Your task to perform on an android device: make emails show in primary in the gmail app Image 0: 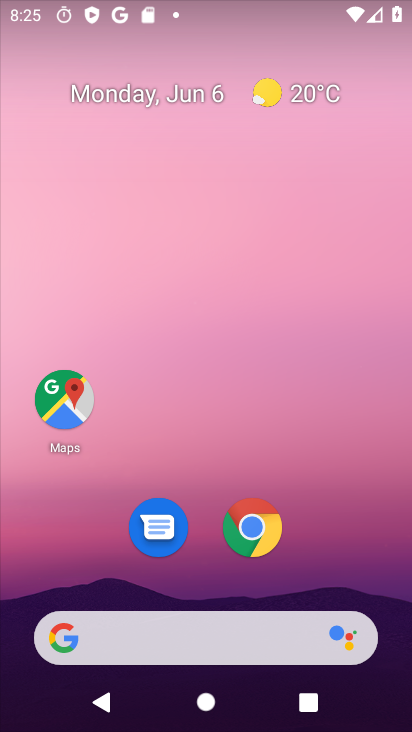
Step 0: drag from (243, 719) to (240, 113)
Your task to perform on an android device: make emails show in primary in the gmail app Image 1: 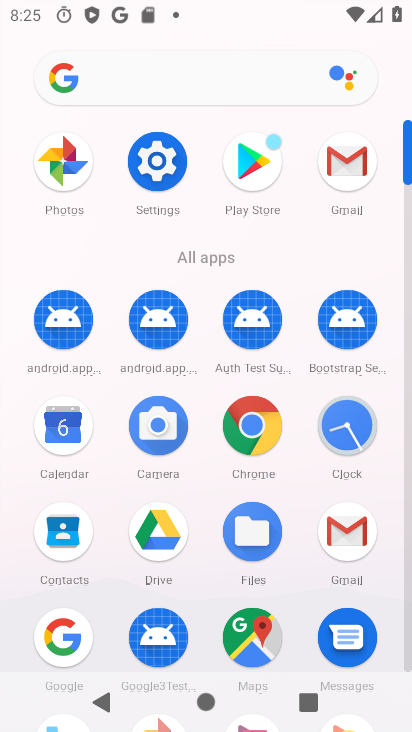
Step 1: click (344, 538)
Your task to perform on an android device: make emails show in primary in the gmail app Image 2: 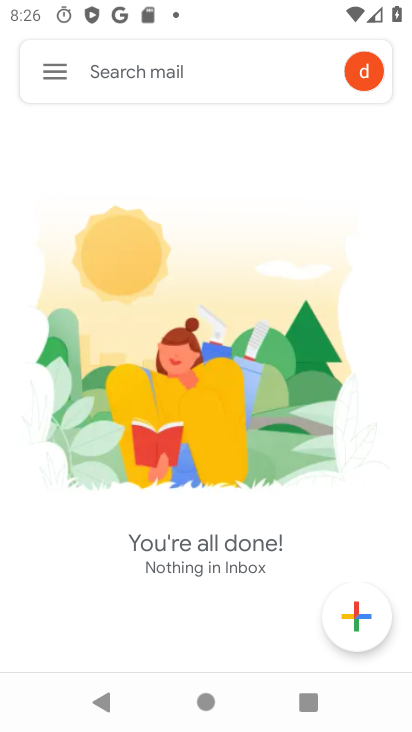
Step 2: click (55, 72)
Your task to perform on an android device: make emails show in primary in the gmail app Image 3: 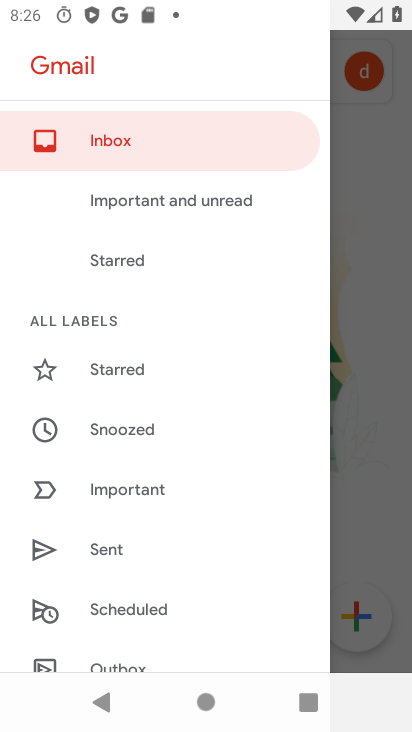
Step 3: drag from (144, 650) to (115, 136)
Your task to perform on an android device: make emails show in primary in the gmail app Image 4: 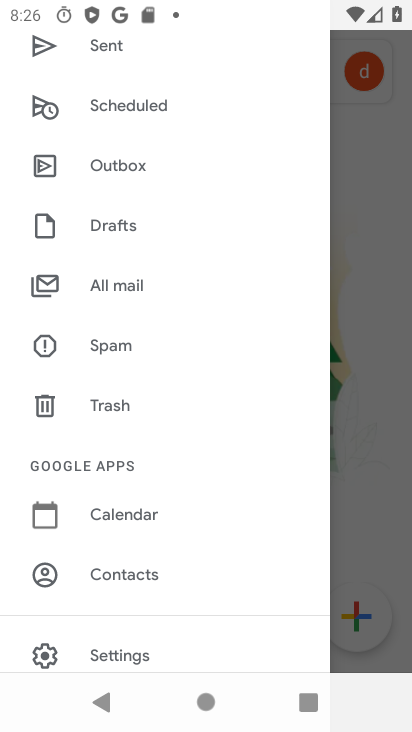
Step 4: drag from (91, 642) to (104, 268)
Your task to perform on an android device: make emails show in primary in the gmail app Image 5: 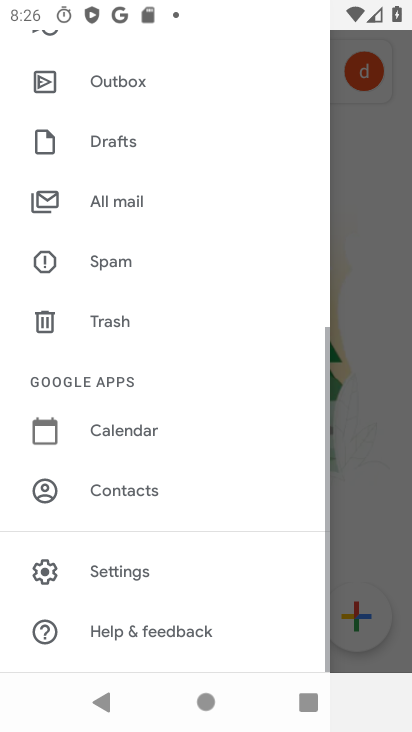
Step 5: click (123, 570)
Your task to perform on an android device: make emails show in primary in the gmail app Image 6: 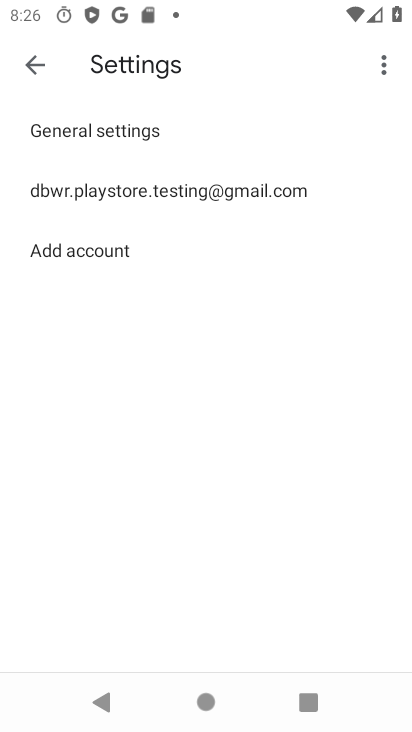
Step 6: click (187, 194)
Your task to perform on an android device: make emails show in primary in the gmail app Image 7: 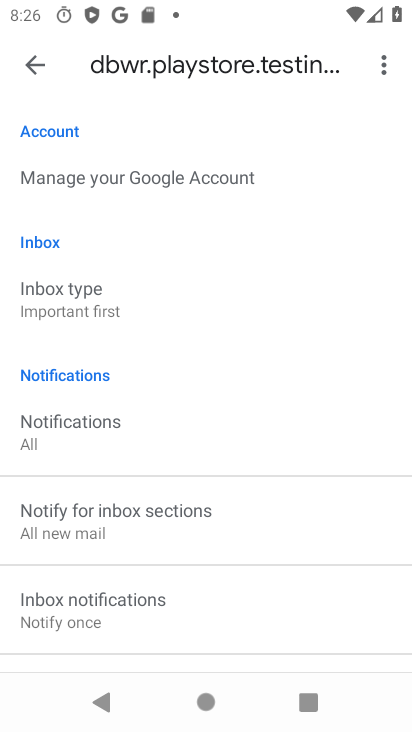
Step 7: click (67, 302)
Your task to perform on an android device: make emails show in primary in the gmail app Image 8: 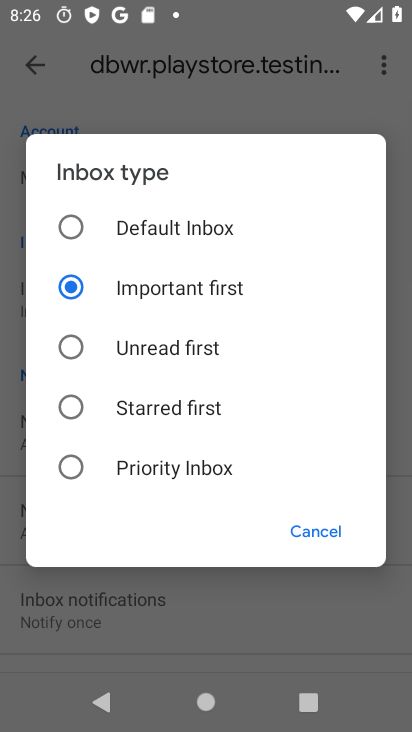
Step 8: click (69, 224)
Your task to perform on an android device: make emails show in primary in the gmail app Image 9: 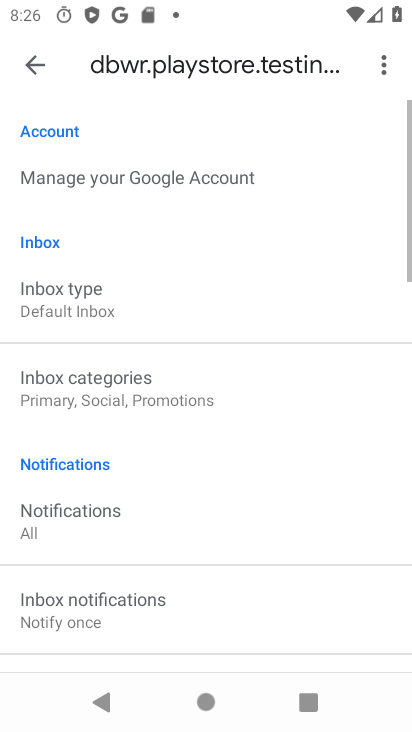
Step 9: click (115, 398)
Your task to perform on an android device: make emails show in primary in the gmail app Image 10: 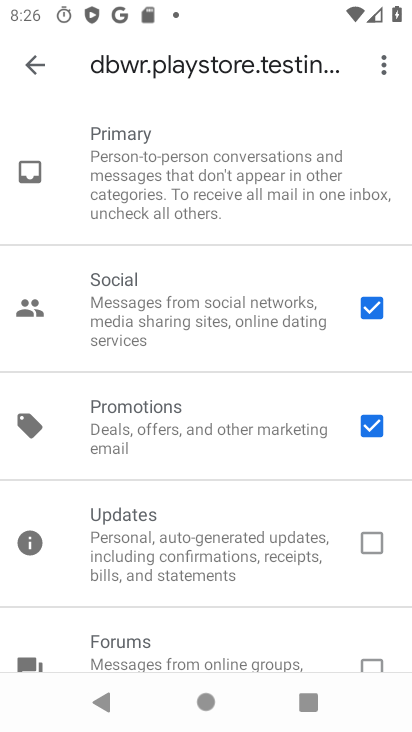
Step 10: click (378, 429)
Your task to perform on an android device: make emails show in primary in the gmail app Image 11: 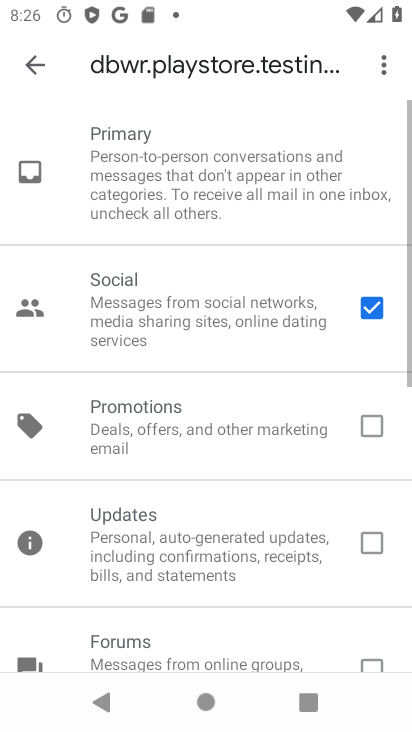
Step 11: click (374, 298)
Your task to perform on an android device: make emails show in primary in the gmail app Image 12: 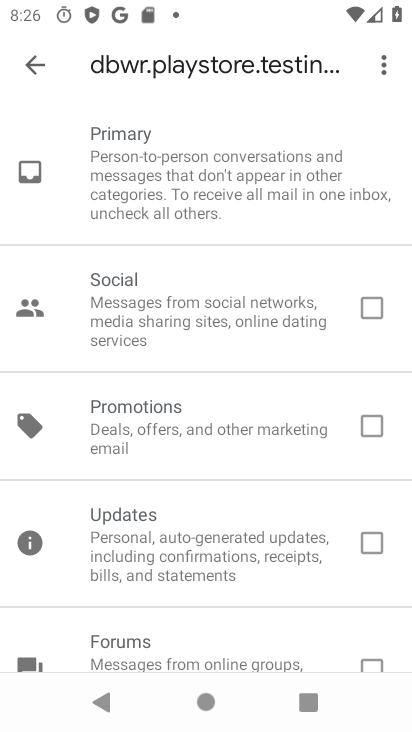
Step 12: click (35, 62)
Your task to perform on an android device: make emails show in primary in the gmail app Image 13: 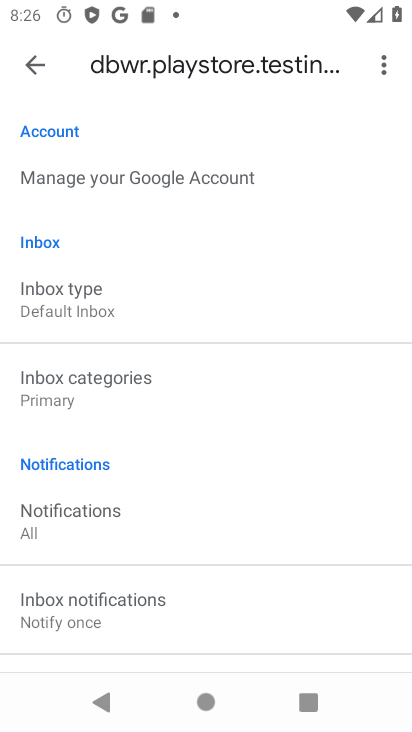
Step 13: task complete